Your task to perform on an android device: Search for "bose soundlink mini" on newegg.com, select the first entry, and add it to the cart. Image 0: 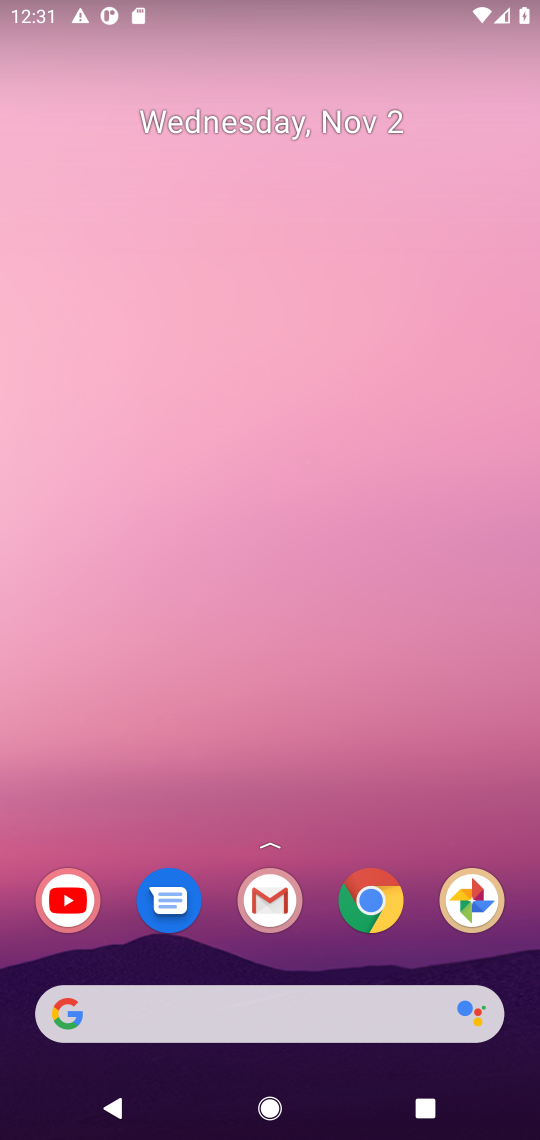
Step 0: click (355, 920)
Your task to perform on an android device: Search for "bose soundlink mini" on newegg.com, select the first entry, and add it to the cart. Image 1: 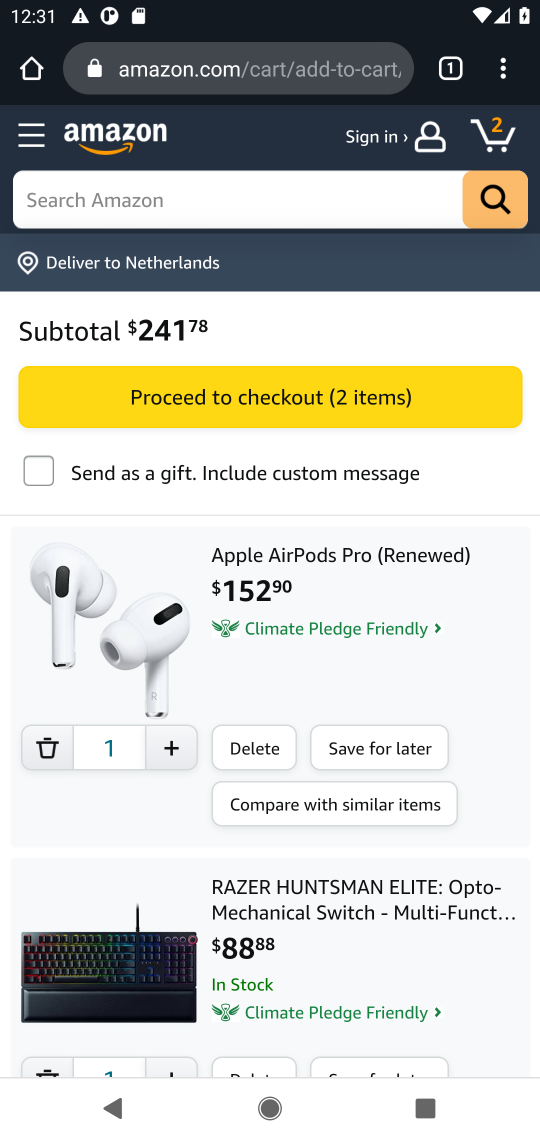
Step 1: click (278, 118)
Your task to perform on an android device: Search for "bose soundlink mini" on newegg.com, select the first entry, and add it to the cart. Image 2: 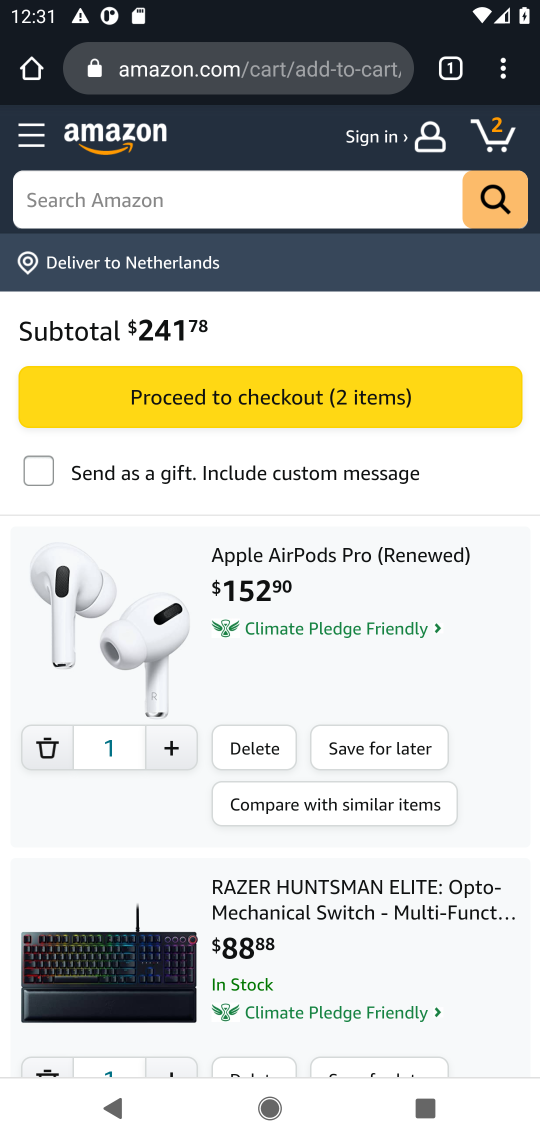
Step 2: click (239, 73)
Your task to perform on an android device: Search for "bose soundlink mini" on newegg.com, select the first entry, and add it to the cart. Image 3: 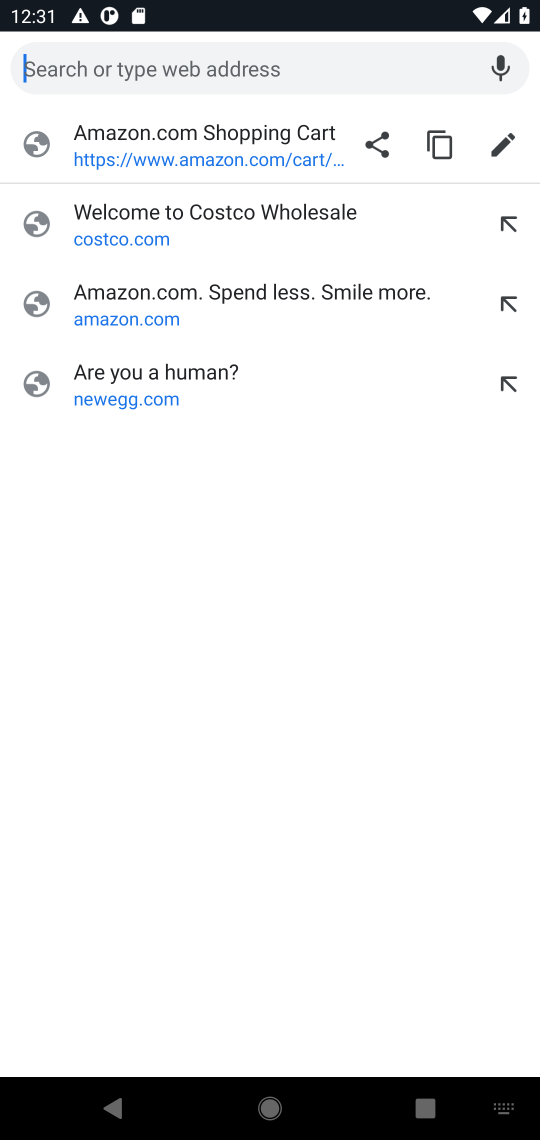
Step 3: type "newegg"
Your task to perform on an android device: Search for "bose soundlink mini" on newegg.com, select the first entry, and add it to the cart. Image 4: 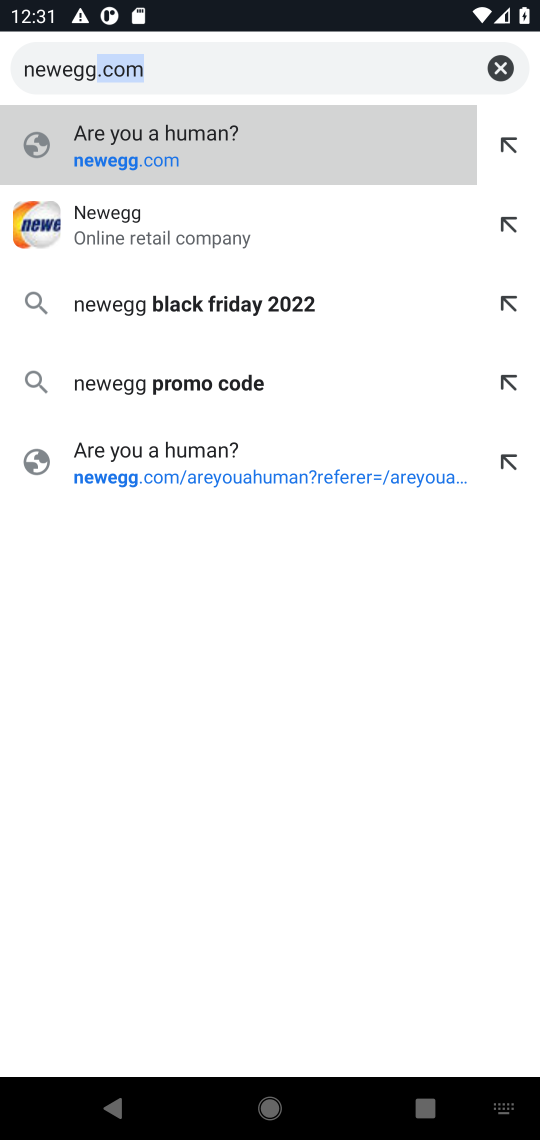
Step 4: click (313, 240)
Your task to perform on an android device: Search for "bose soundlink mini" on newegg.com, select the first entry, and add it to the cart. Image 5: 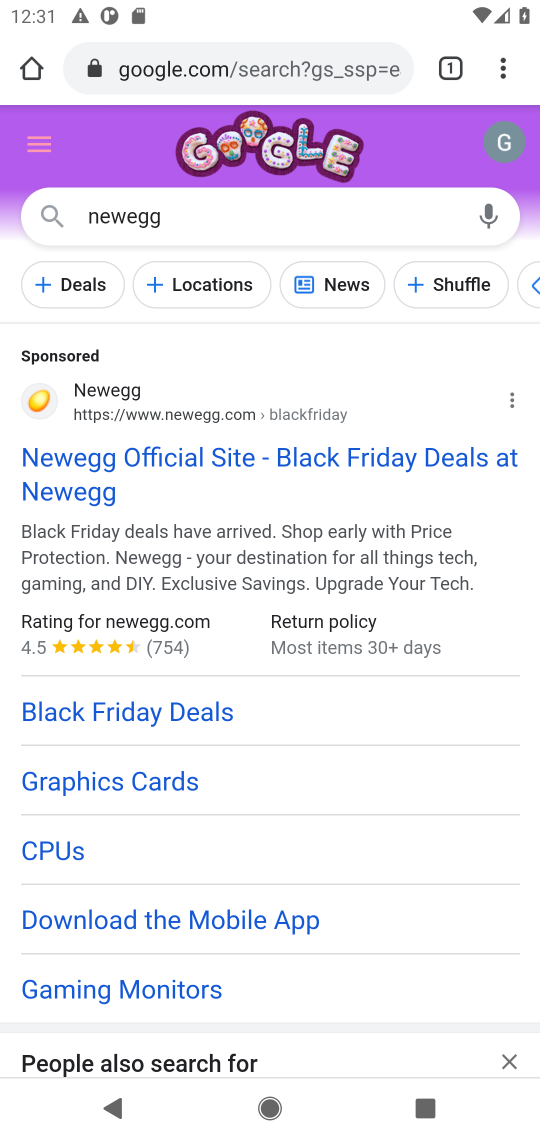
Step 5: click (119, 490)
Your task to perform on an android device: Search for "bose soundlink mini" on newegg.com, select the first entry, and add it to the cart. Image 6: 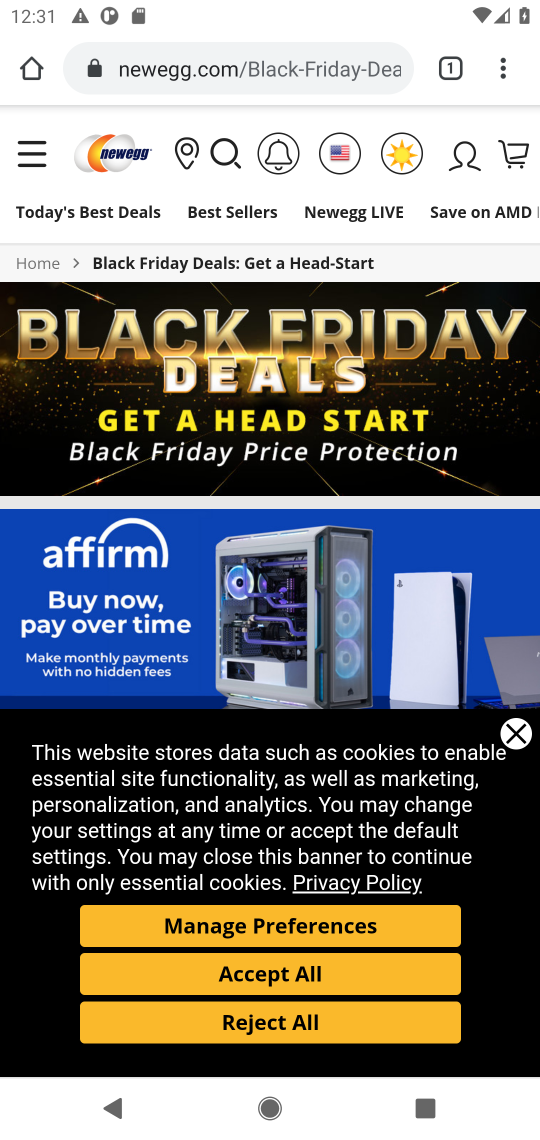
Step 6: click (521, 728)
Your task to perform on an android device: Search for "bose soundlink mini" on newegg.com, select the first entry, and add it to the cart. Image 7: 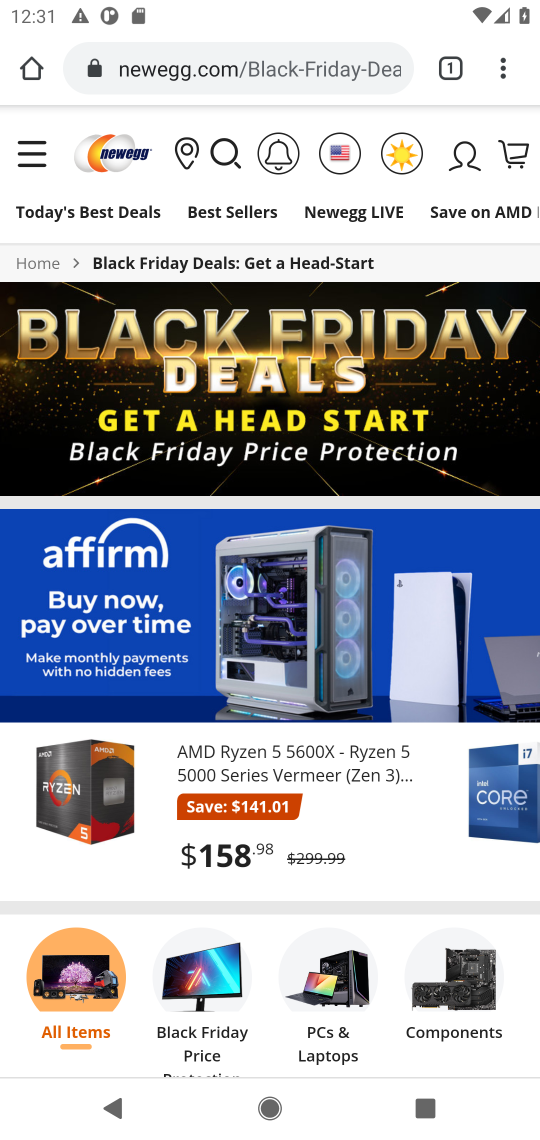
Step 7: click (228, 153)
Your task to perform on an android device: Search for "bose soundlink mini" on newegg.com, select the first entry, and add it to the cart. Image 8: 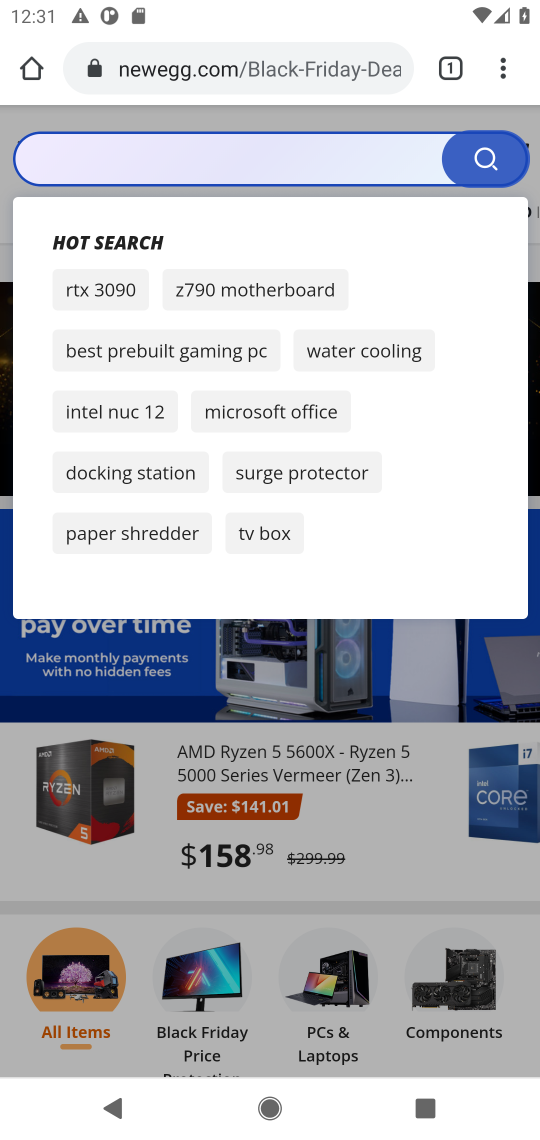
Step 8: click (197, 158)
Your task to perform on an android device: Search for "bose soundlink mini" on newegg.com, select the first entry, and add it to the cart. Image 9: 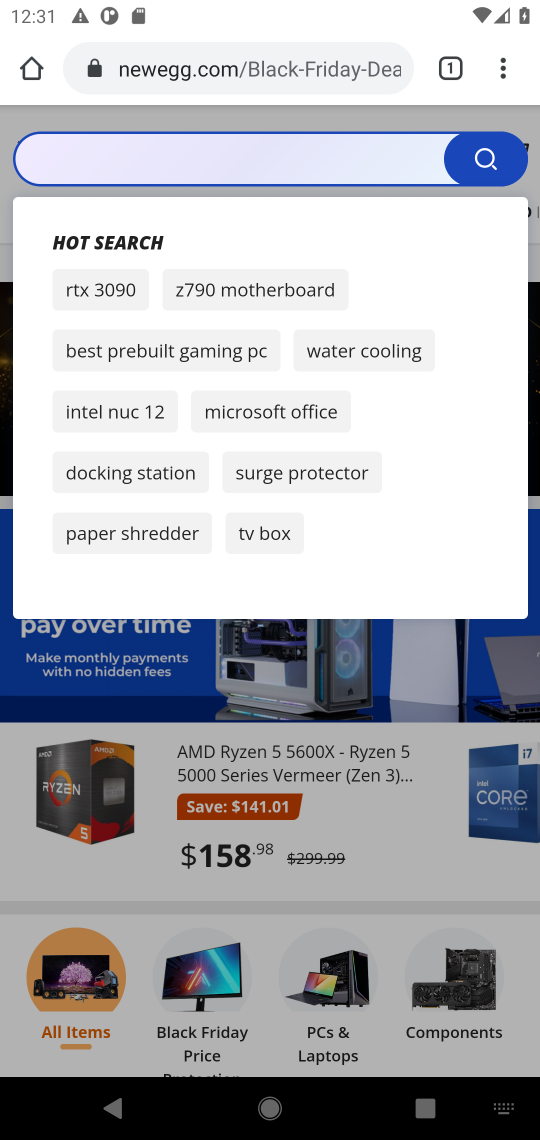
Step 9: type "bose soundlink mini"
Your task to perform on an android device: Search for "bose soundlink mini" on newegg.com, select the first entry, and add it to the cart. Image 10: 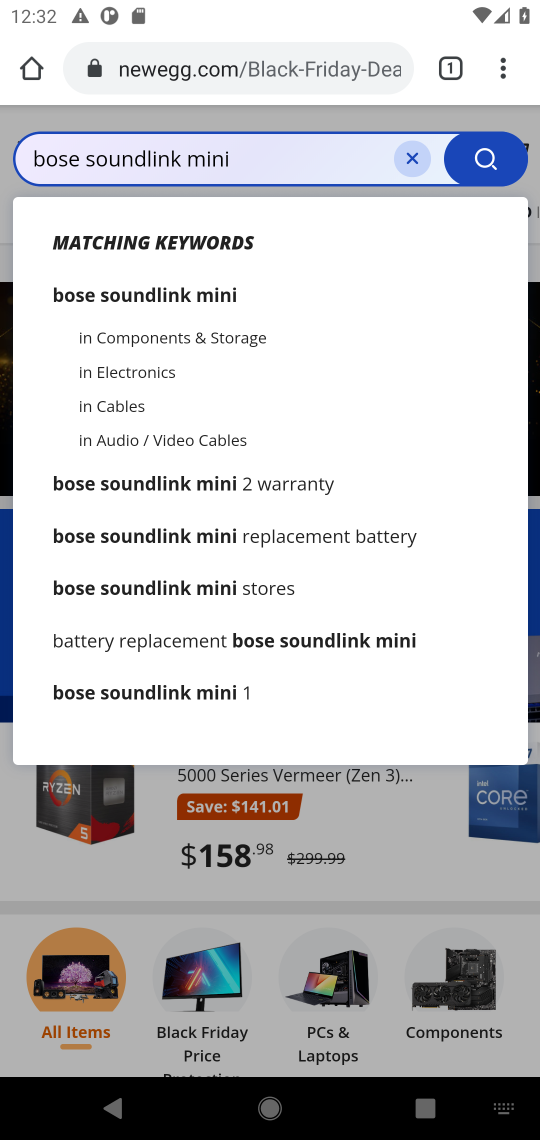
Step 10: click (460, 162)
Your task to perform on an android device: Search for "bose soundlink mini" on newegg.com, select the first entry, and add it to the cart. Image 11: 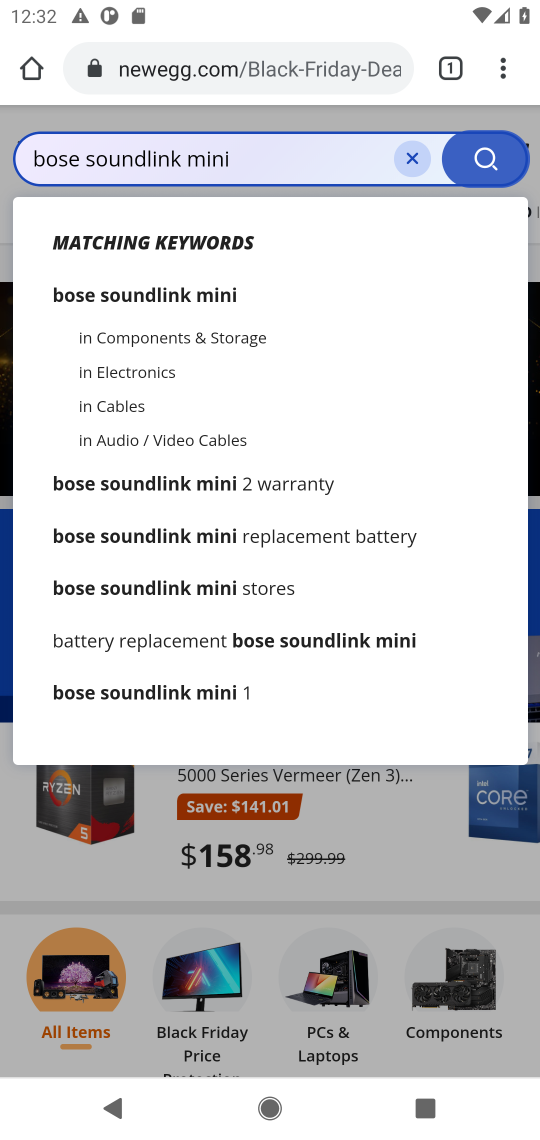
Step 11: click (489, 168)
Your task to perform on an android device: Search for "bose soundlink mini" on newegg.com, select the first entry, and add it to the cart. Image 12: 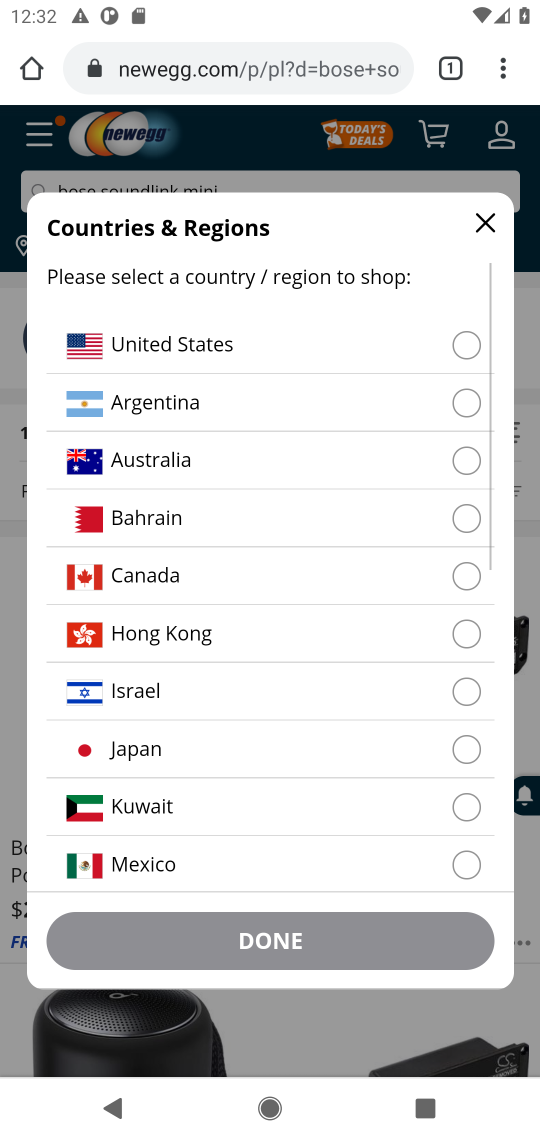
Step 12: click (225, 341)
Your task to perform on an android device: Search for "bose soundlink mini" on newegg.com, select the first entry, and add it to the cart. Image 13: 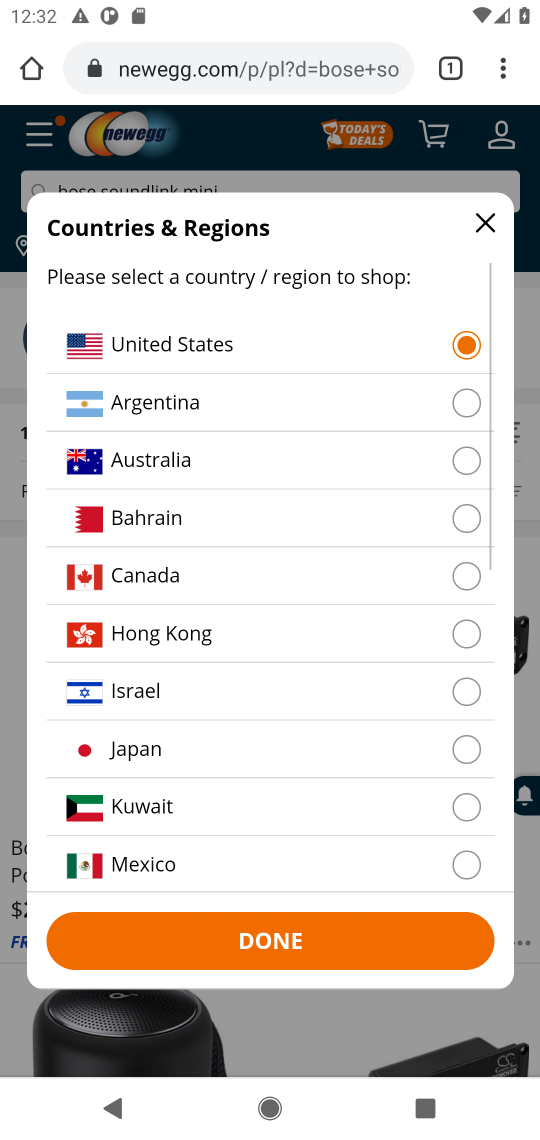
Step 13: click (211, 952)
Your task to perform on an android device: Search for "bose soundlink mini" on newegg.com, select the first entry, and add it to the cart. Image 14: 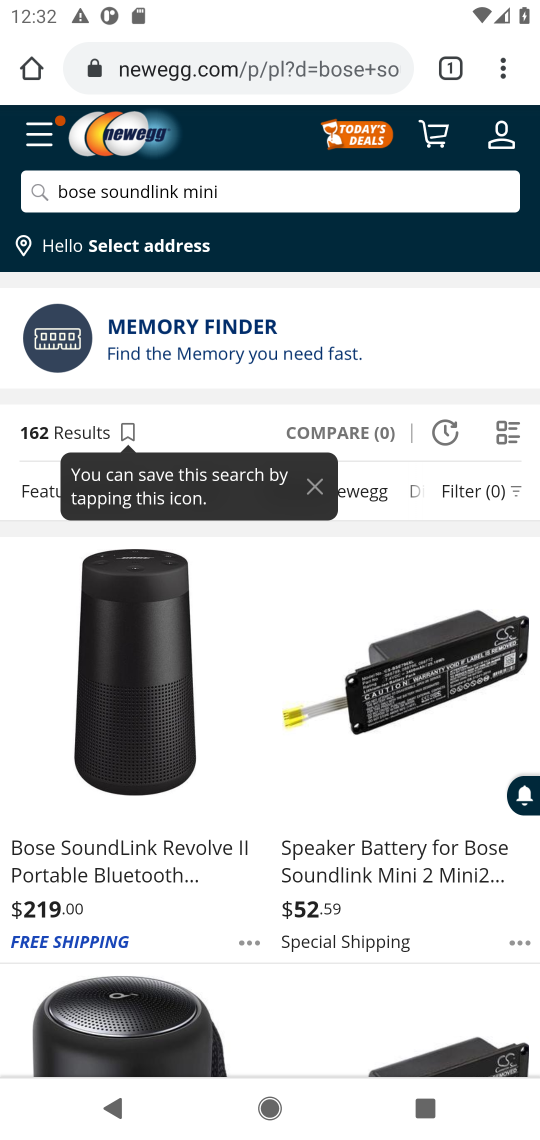
Step 14: click (491, 704)
Your task to perform on an android device: Search for "bose soundlink mini" on newegg.com, select the first entry, and add it to the cart. Image 15: 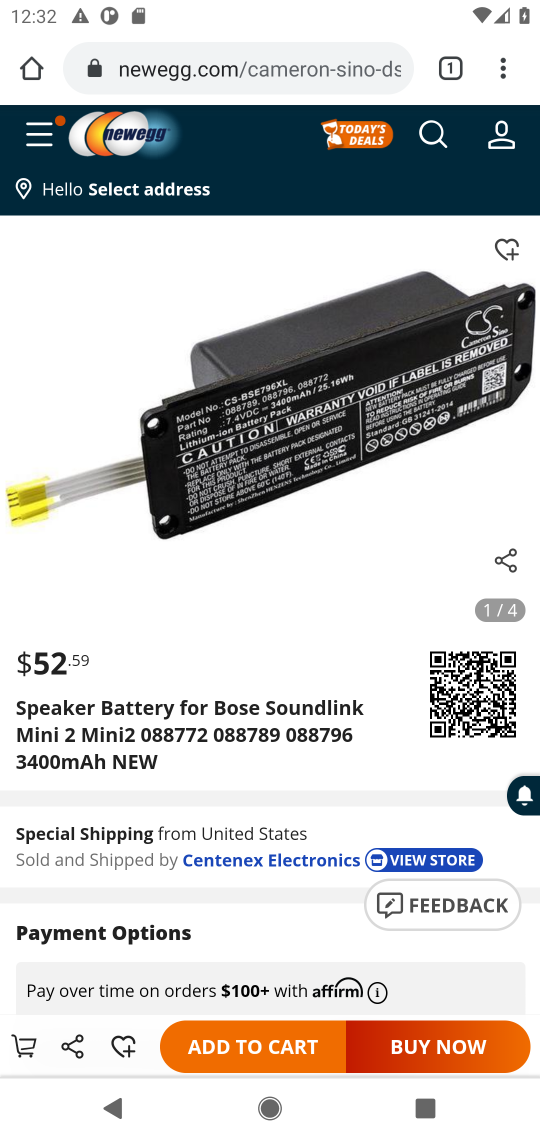
Step 15: press back button
Your task to perform on an android device: Search for "bose soundlink mini" on newegg.com, select the first entry, and add it to the cart. Image 16: 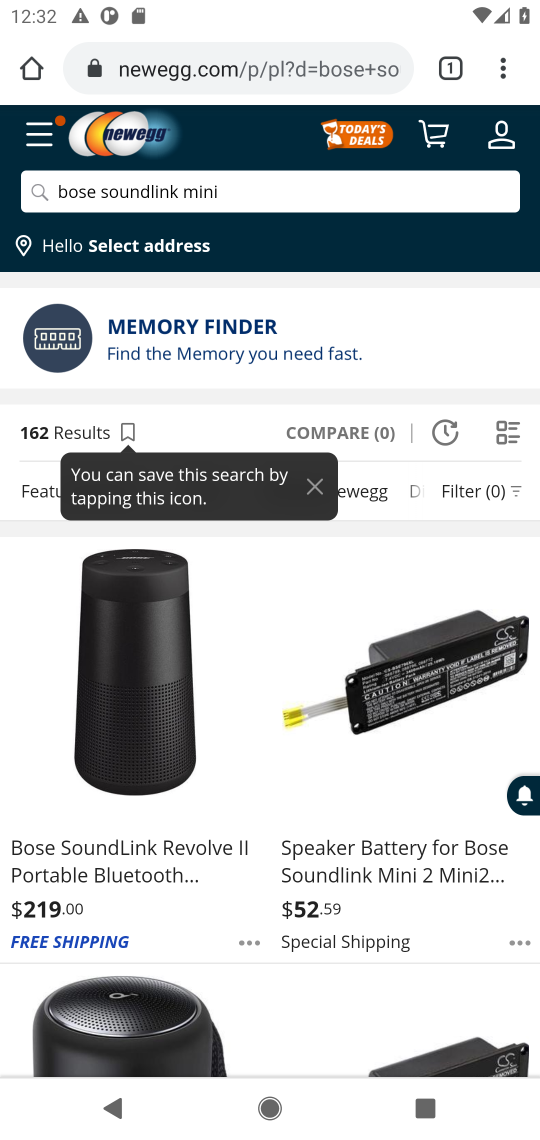
Step 16: click (41, 718)
Your task to perform on an android device: Search for "bose soundlink mini" on newegg.com, select the first entry, and add it to the cart. Image 17: 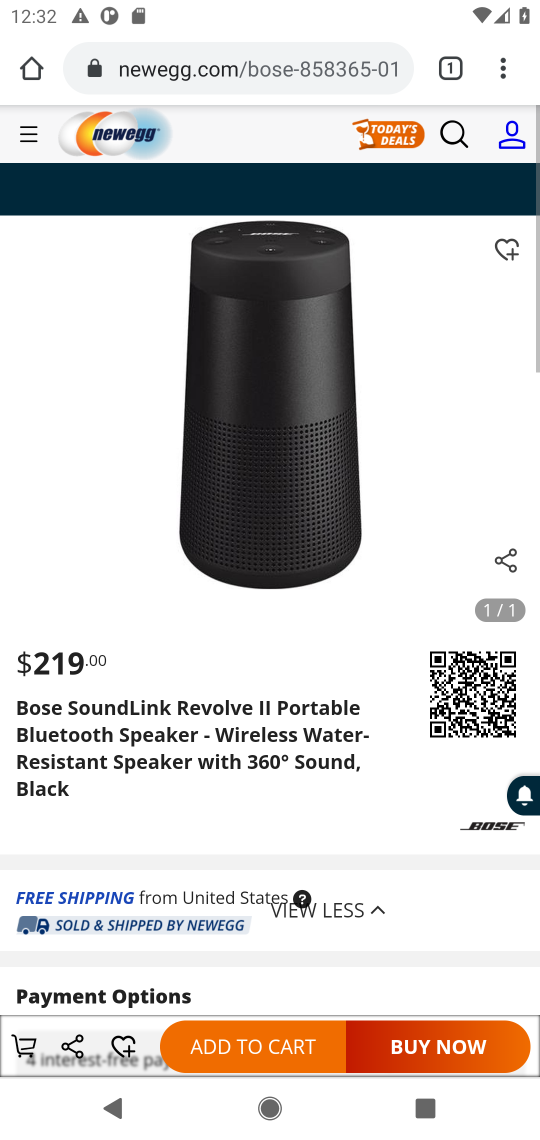
Step 17: click (206, 1037)
Your task to perform on an android device: Search for "bose soundlink mini" on newegg.com, select the first entry, and add it to the cart. Image 18: 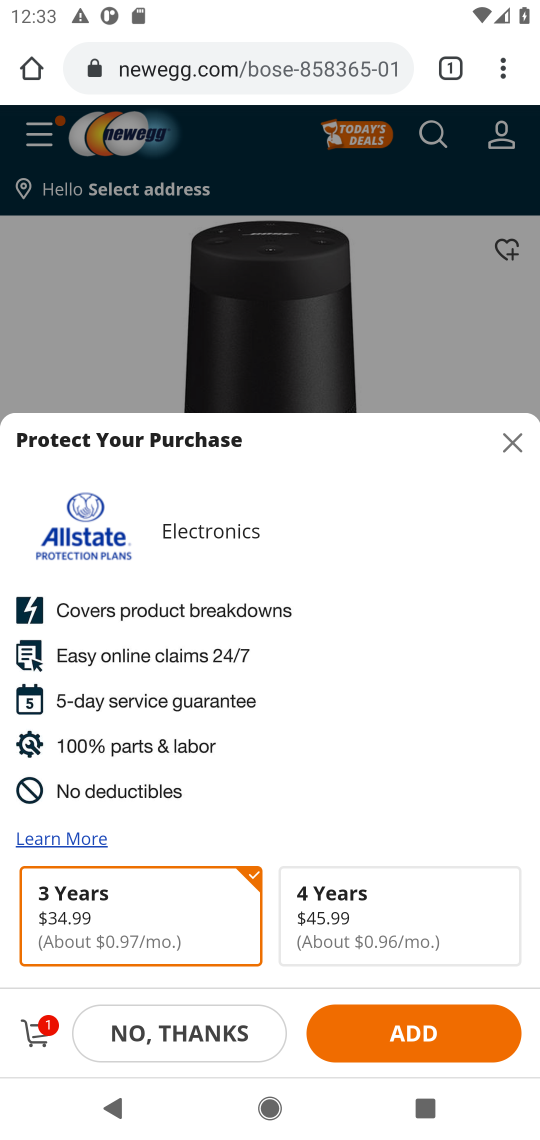
Step 18: task complete